Your task to perform on an android device: turn off wifi Image 0: 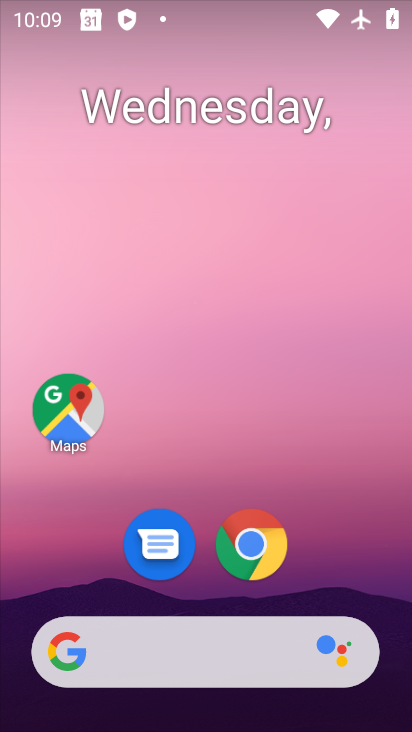
Step 0: drag from (339, 545) to (323, 220)
Your task to perform on an android device: turn off wifi Image 1: 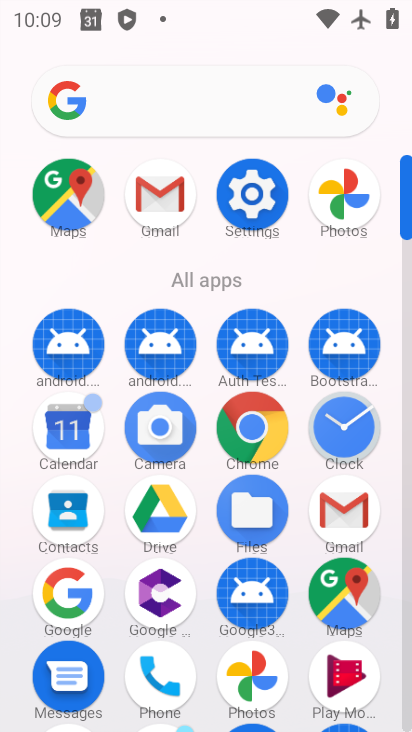
Step 1: click (270, 187)
Your task to perform on an android device: turn off wifi Image 2: 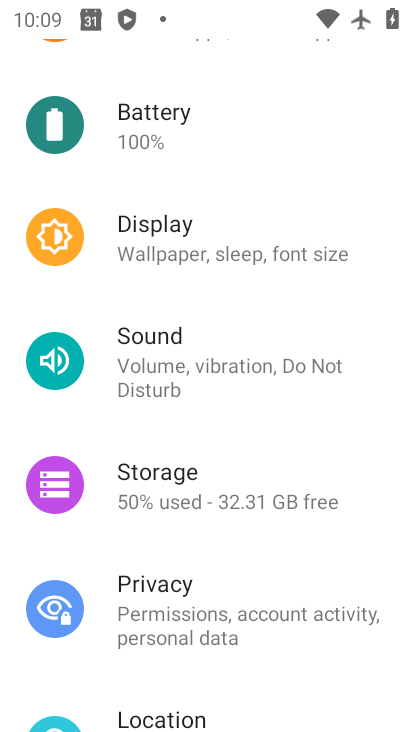
Step 2: drag from (80, 376) to (80, 517)
Your task to perform on an android device: turn off wifi Image 3: 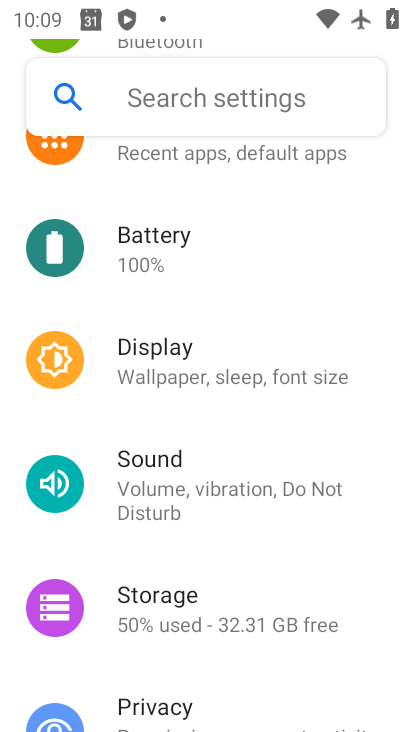
Step 3: drag from (187, 194) to (194, 323)
Your task to perform on an android device: turn off wifi Image 4: 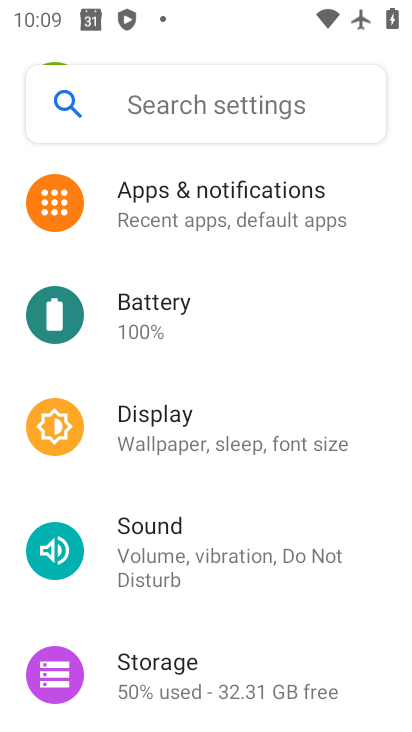
Step 4: drag from (203, 280) to (214, 427)
Your task to perform on an android device: turn off wifi Image 5: 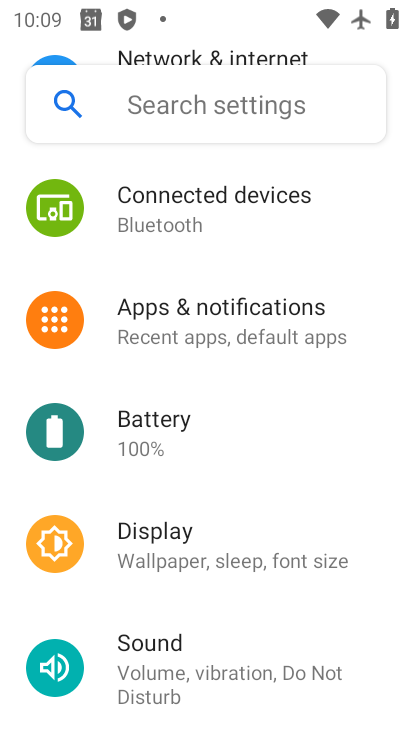
Step 5: drag from (278, 192) to (273, 375)
Your task to perform on an android device: turn off wifi Image 6: 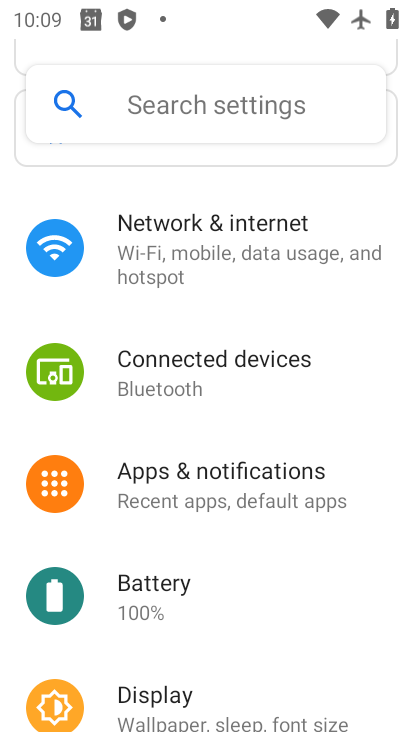
Step 6: click (269, 272)
Your task to perform on an android device: turn off wifi Image 7: 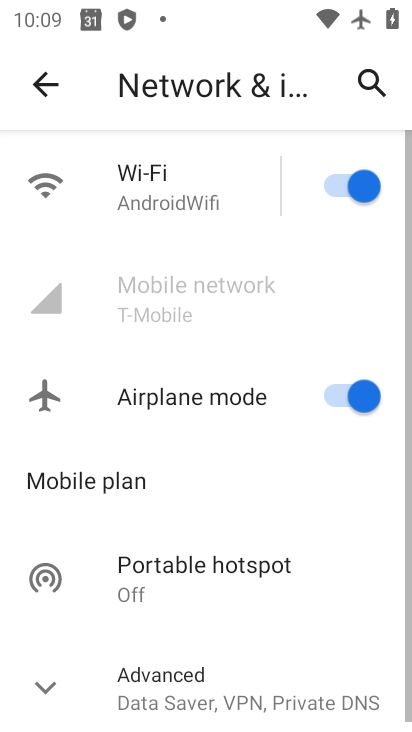
Step 7: click (269, 272)
Your task to perform on an android device: turn off wifi Image 8: 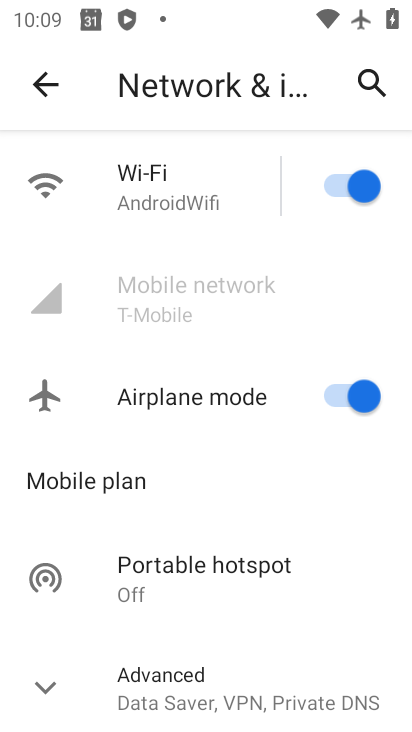
Step 8: click (342, 177)
Your task to perform on an android device: turn off wifi Image 9: 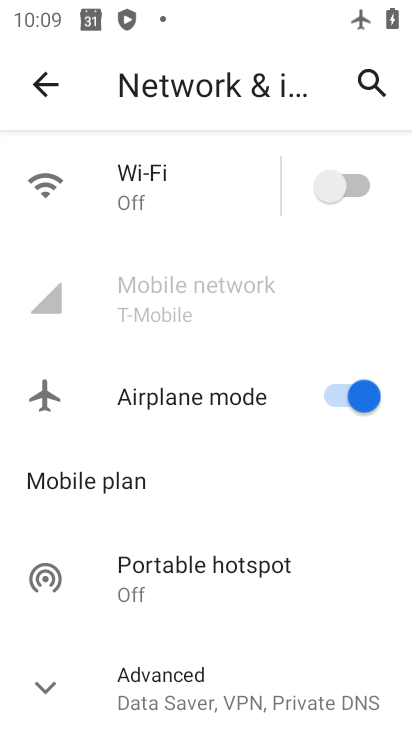
Step 9: task complete